Your task to perform on an android device: Open Yahoo.com Image 0: 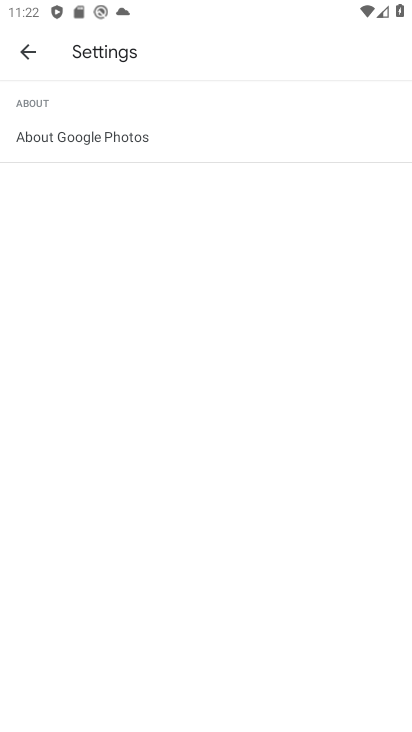
Step 0: press home button
Your task to perform on an android device: Open Yahoo.com Image 1: 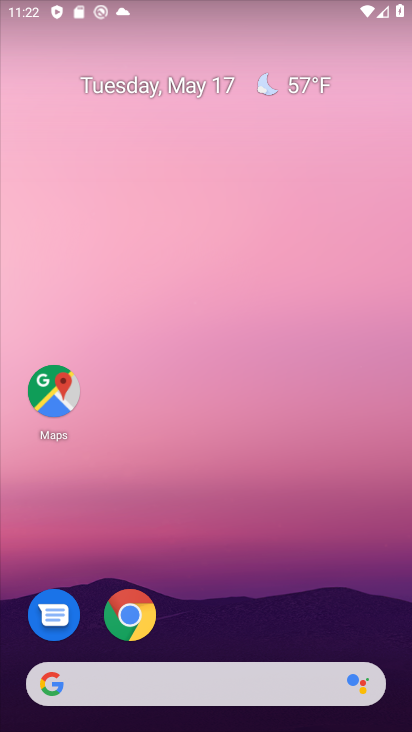
Step 1: drag from (351, 630) to (241, 47)
Your task to perform on an android device: Open Yahoo.com Image 2: 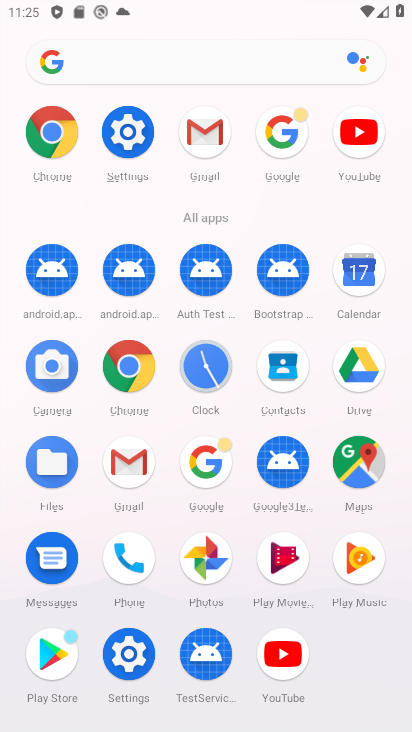
Step 2: click (191, 463)
Your task to perform on an android device: Open Yahoo.com Image 3: 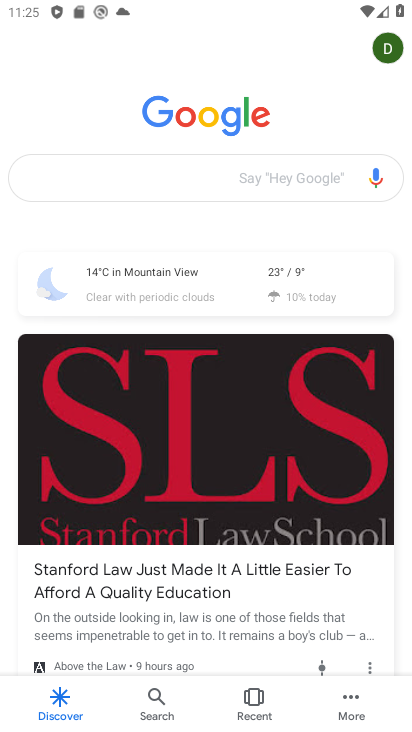
Step 3: click (108, 185)
Your task to perform on an android device: Open Yahoo.com Image 4: 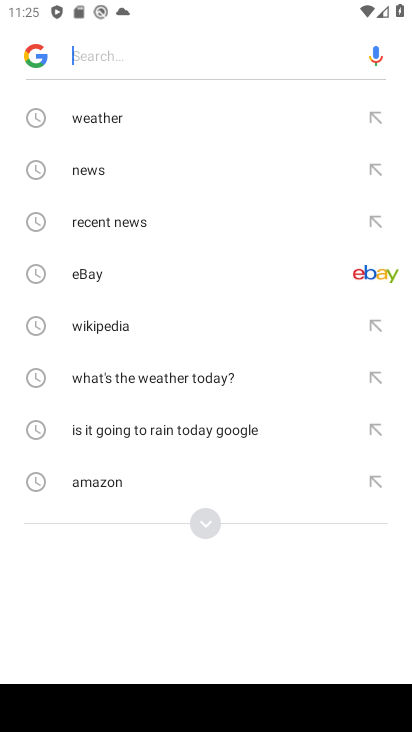
Step 4: click (202, 515)
Your task to perform on an android device: Open Yahoo.com Image 5: 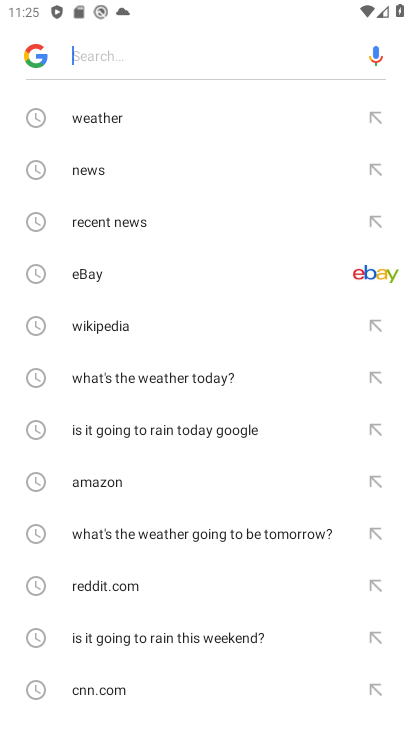
Step 5: drag from (131, 684) to (205, 305)
Your task to perform on an android device: Open Yahoo.com Image 6: 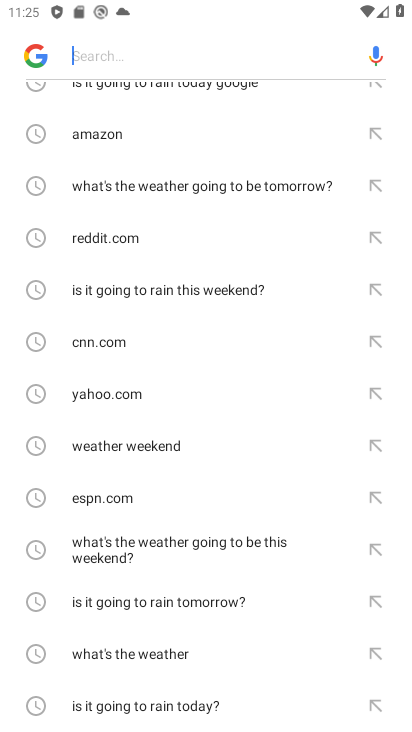
Step 6: click (110, 394)
Your task to perform on an android device: Open Yahoo.com Image 7: 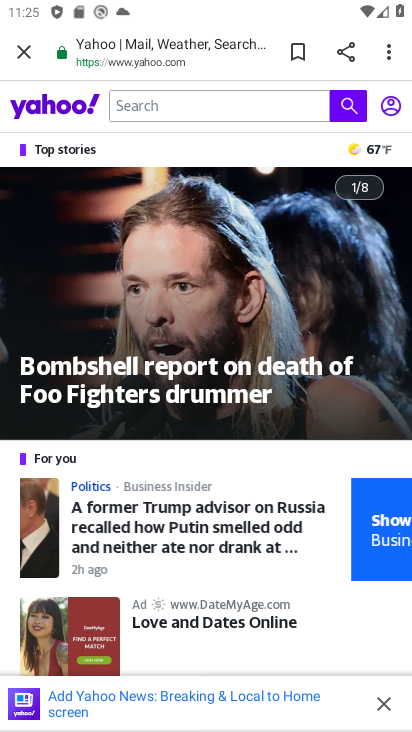
Step 7: task complete